Your task to perform on an android device: turn off wifi Image 0: 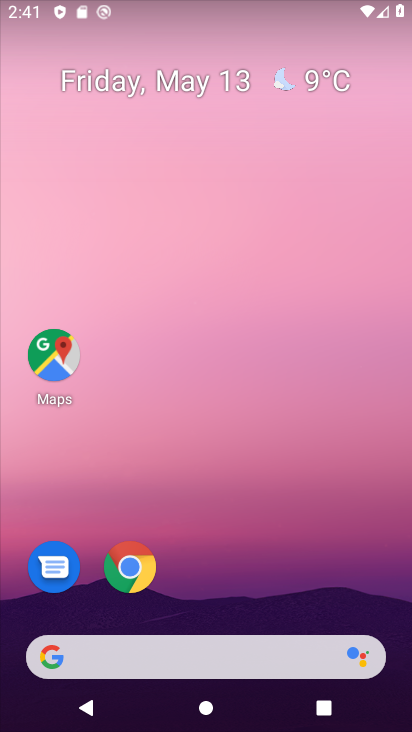
Step 0: drag from (281, 585) to (314, 25)
Your task to perform on an android device: turn off wifi Image 1: 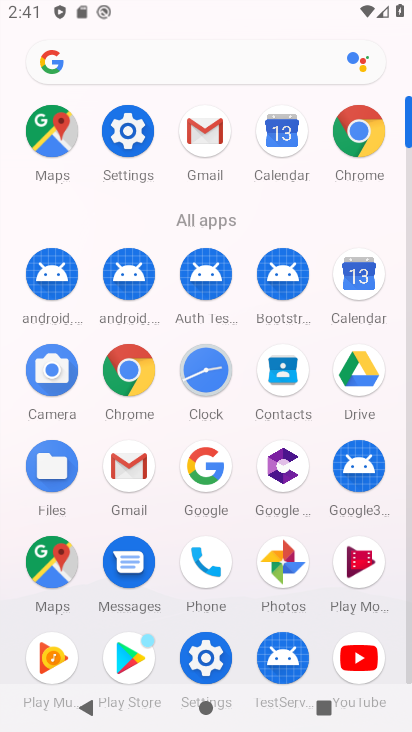
Step 1: click (129, 127)
Your task to perform on an android device: turn off wifi Image 2: 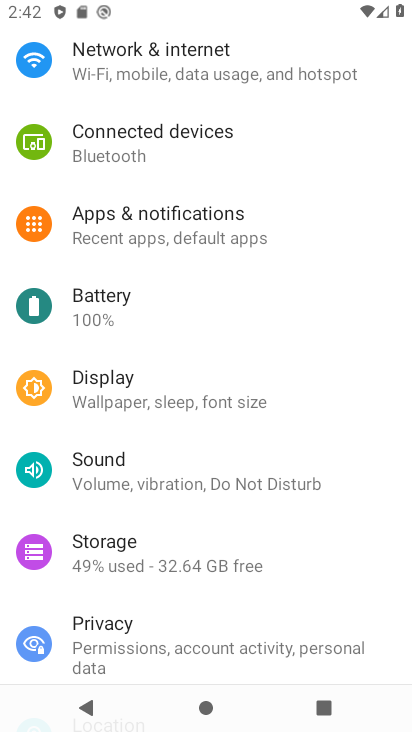
Step 2: click (206, 75)
Your task to perform on an android device: turn off wifi Image 3: 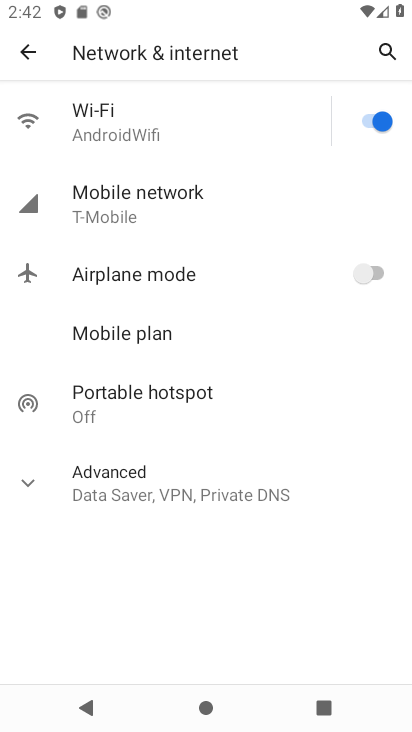
Step 3: click (389, 122)
Your task to perform on an android device: turn off wifi Image 4: 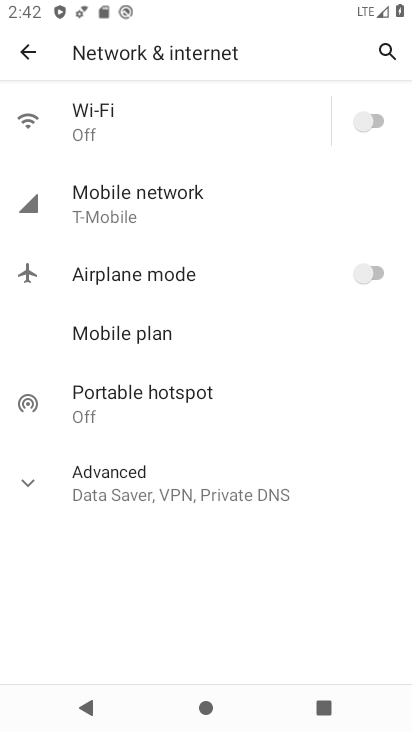
Step 4: task complete